Your task to perform on an android device: turn pop-ups on in chrome Image 0: 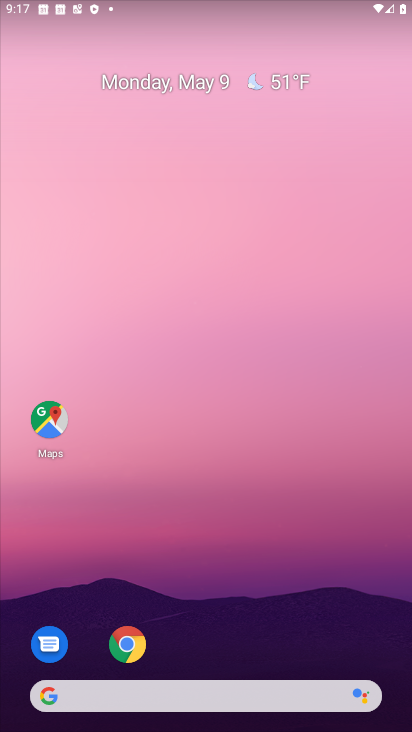
Step 0: drag from (271, 668) to (251, 8)
Your task to perform on an android device: turn pop-ups on in chrome Image 1: 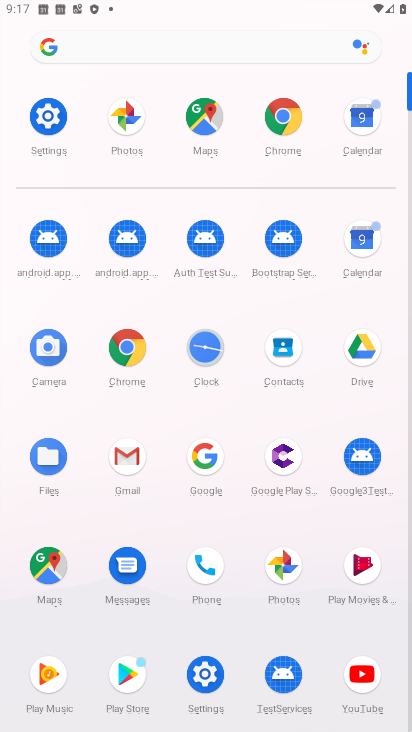
Step 1: click (275, 114)
Your task to perform on an android device: turn pop-ups on in chrome Image 2: 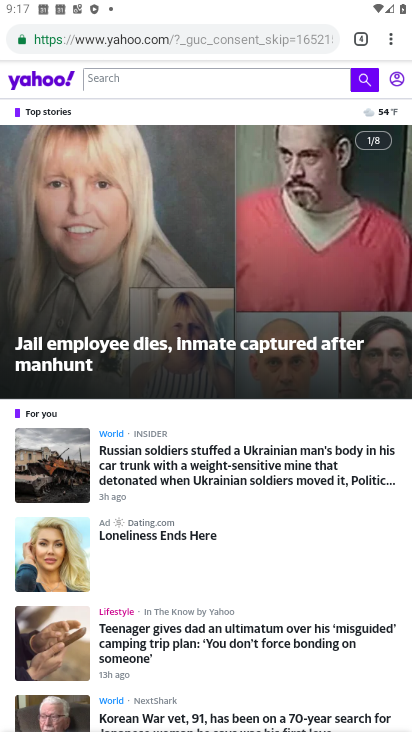
Step 2: click (394, 46)
Your task to perform on an android device: turn pop-ups on in chrome Image 3: 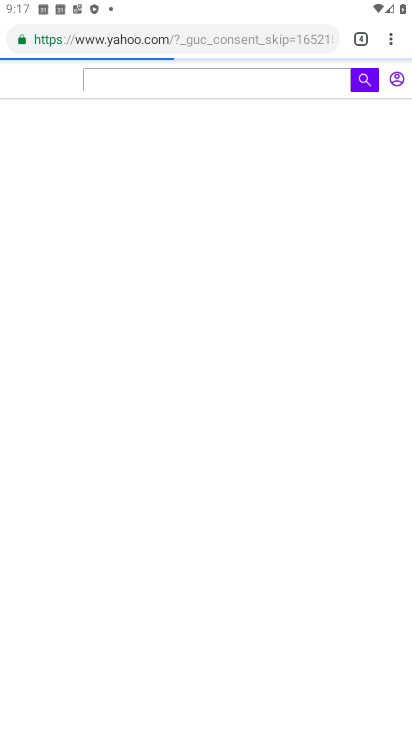
Step 3: click (387, 35)
Your task to perform on an android device: turn pop-ups on in chrome Image 4: 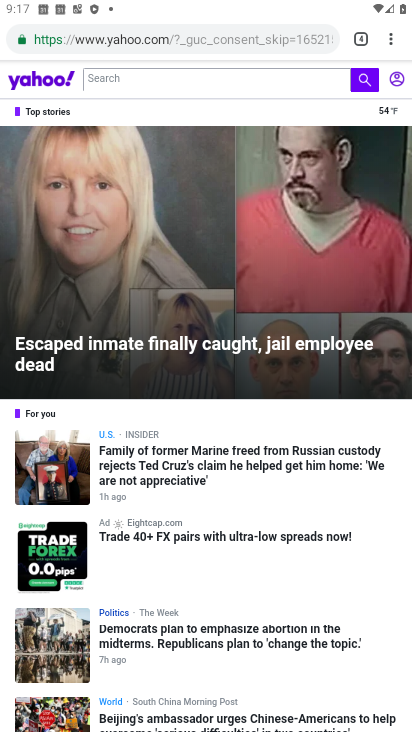
Step 4: click (387, 36)
Your task to perform on an android device: turn pop-ups on in chrome Image 5: 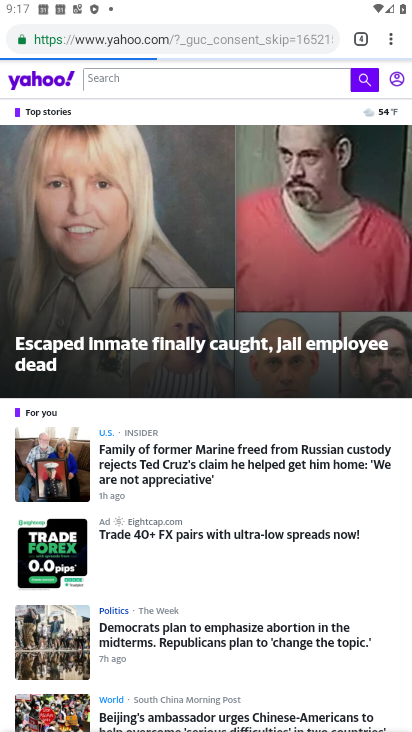
Step 5: click (387, 37)
Your task to perform on an android device: turn pop-ups on in chrome Image 6: 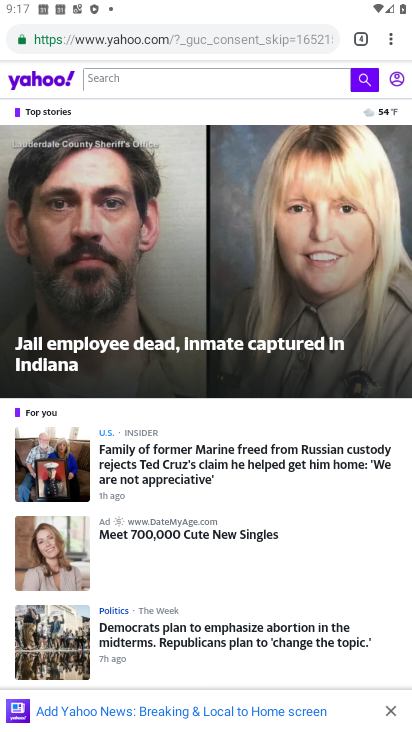
Step 6: click (385, 55)
Your task to perform on an android device: turn pop-ups on in chrome Image 7: 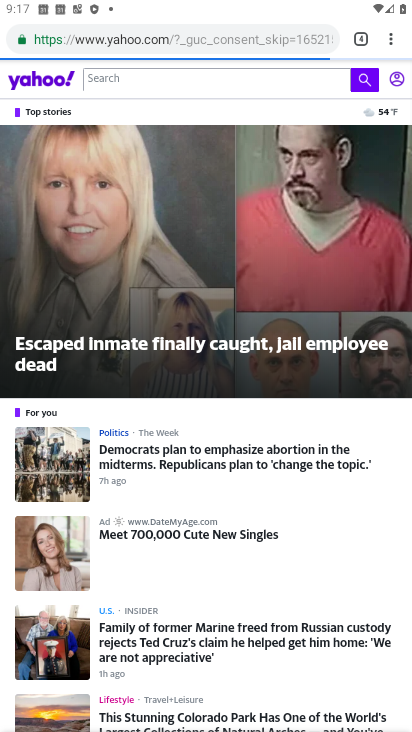
Step 7: drag from (382, 47) to (253, 436)
Your task to perform on an android device: turn pop-ups on in chrome Image 8: 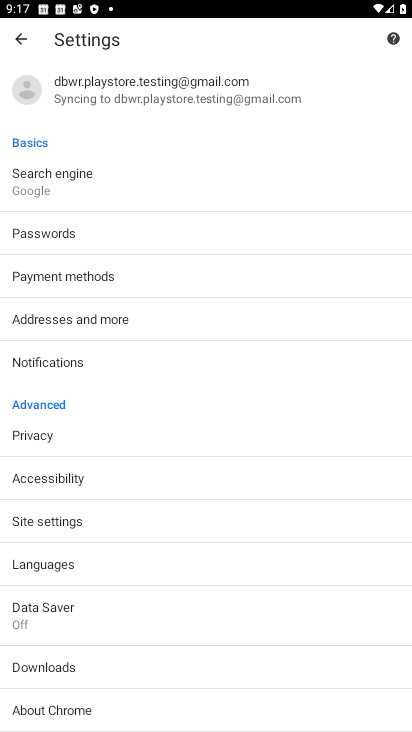
Step 8: click (46, 525)
Your task to perform on an android device: turn pop-ups on in chrome Image 9: 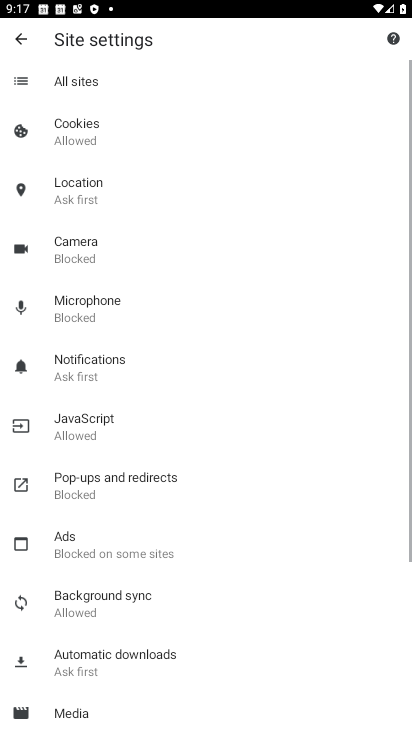
Step 9: click (85, 486)
Your task to perform on an android device: turn pop-ups on in chrome Image 10: 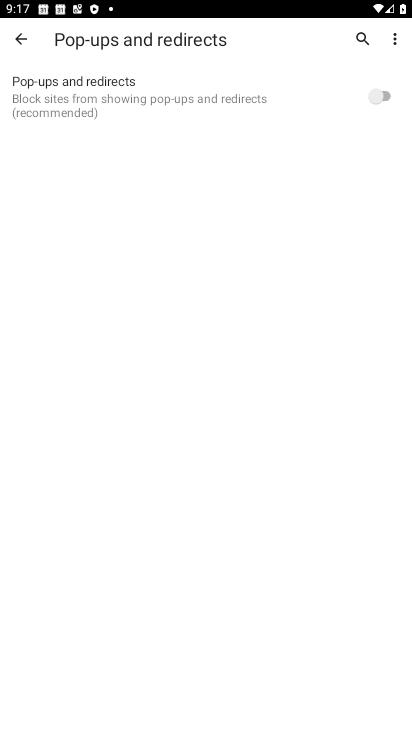
Step 10: click (375, 86)
Your task to perform on an android device: turn pop-ups on in chrome Image 11: 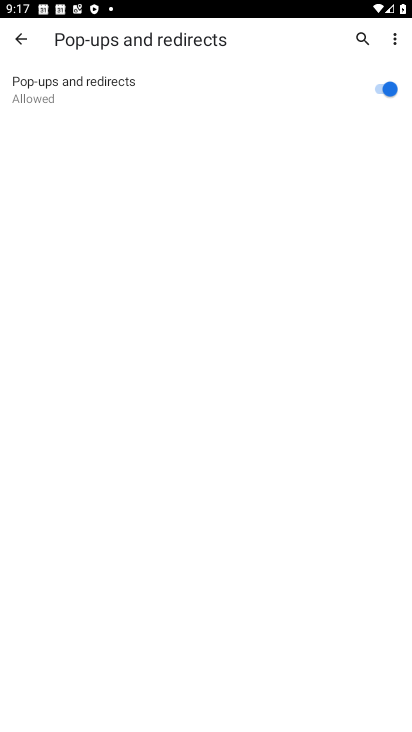
Step 11: task complete